Your task to perform on an android device: check google app version Image 0: 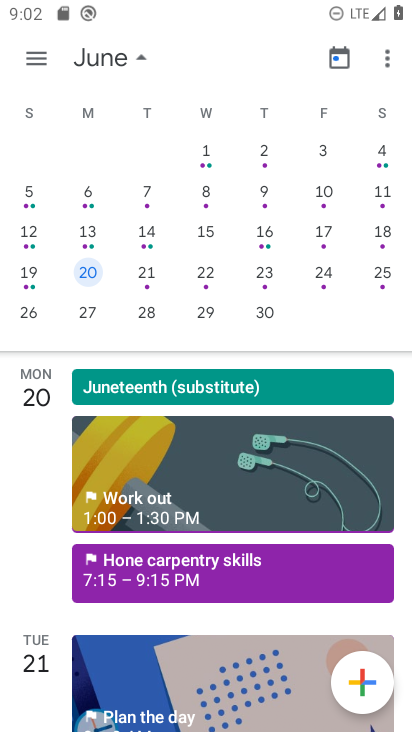
Step 0: press home button
Your task to perform on an android device: check google app version Image 1: 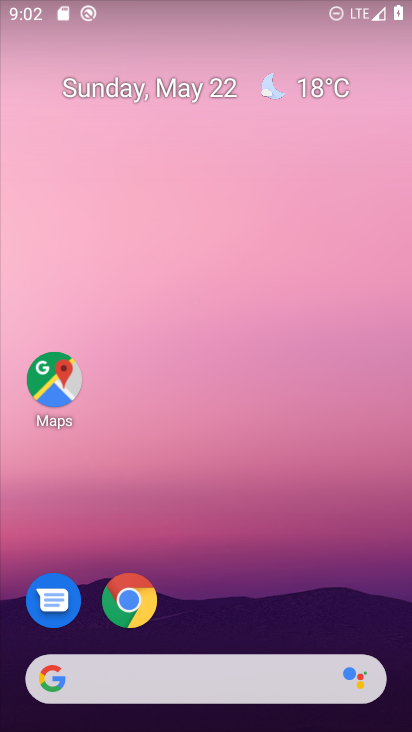
Step 1: drag from (382, 635) to (272, 17)
Your task to perform on an android device: check google app version Image 2: 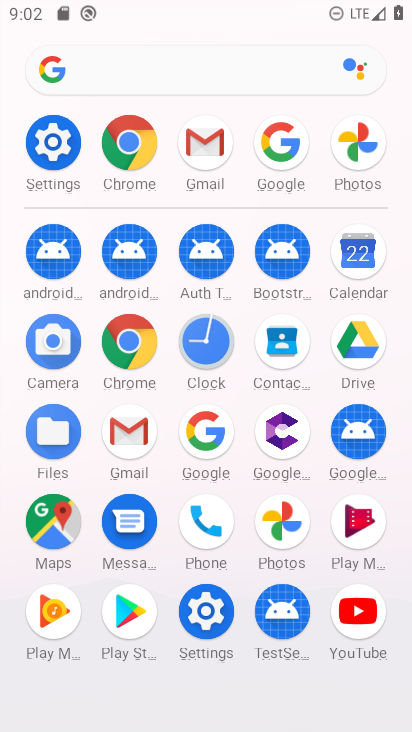
Step 2: click (208, 429)
Your task to perform on an android device: check google app version Image 3: 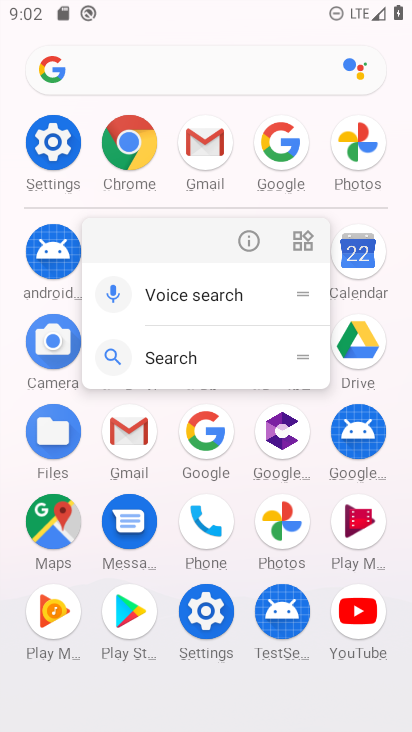
Step 3: click (259, 244)
Your task to perform on an android device: check google app version Image 4: 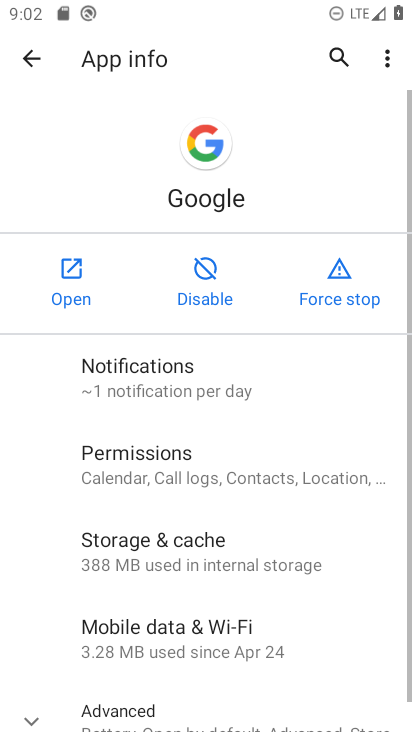
Step 4: drag from (209, 646) to (227, 49)
Your task to perform on an android device: check google app version Image 5: 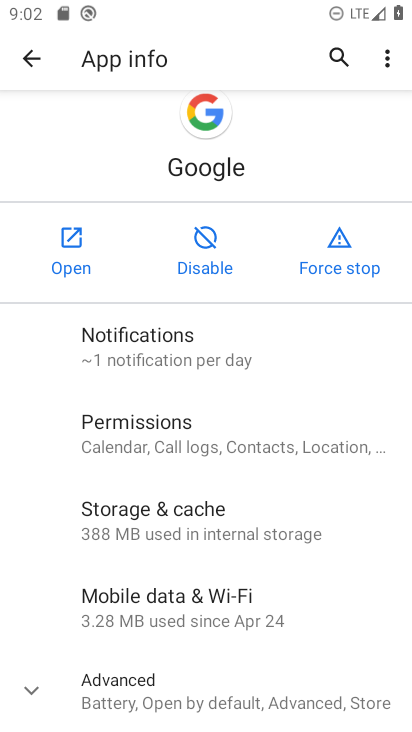
Step 5: click (31, 688)
Your task to perform on an android device: check google app version Image 6: 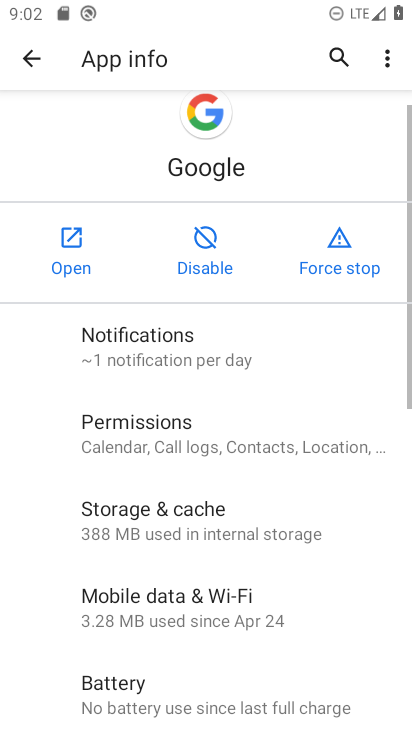
Step 6: task complete